Your task to perform on an android device: Go to sound settings Image 0: 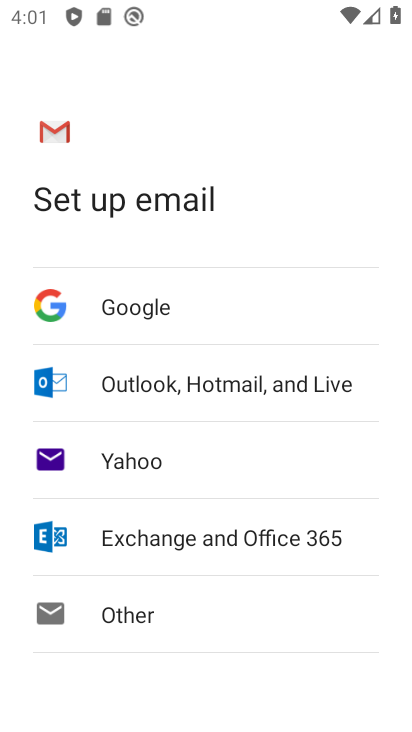
Step 0: press home button
Your task to perform on an android device: Go to sound settings Image 1: 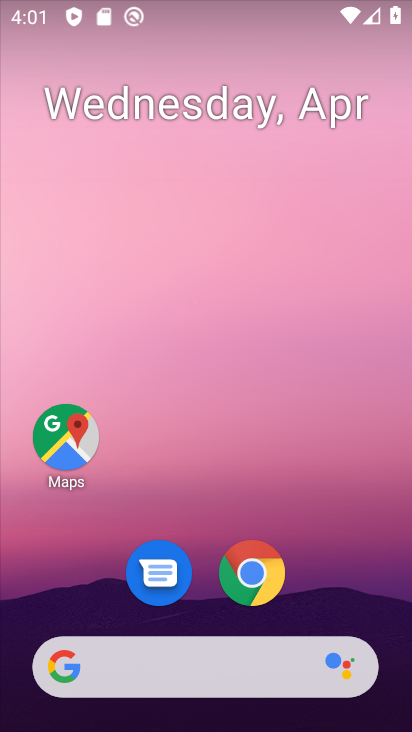
Step 1: drag from (382, 615) to (387, 68)
Your task to perform on an android device: Go to sound settings Image 2: 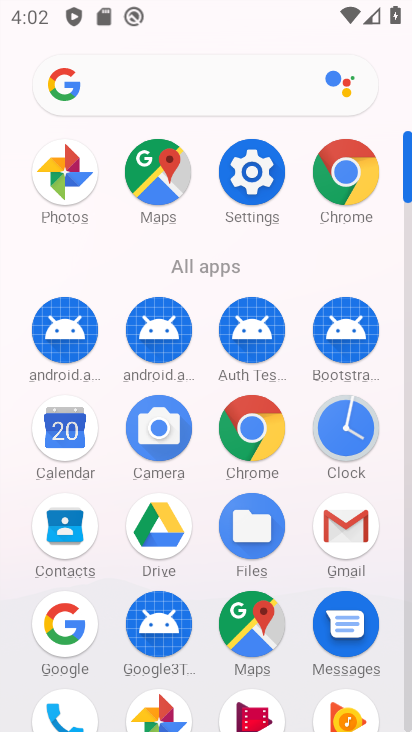
Step 2: click (249, 181)
Your task to perform on an android device: Go to sound settings Image 3: 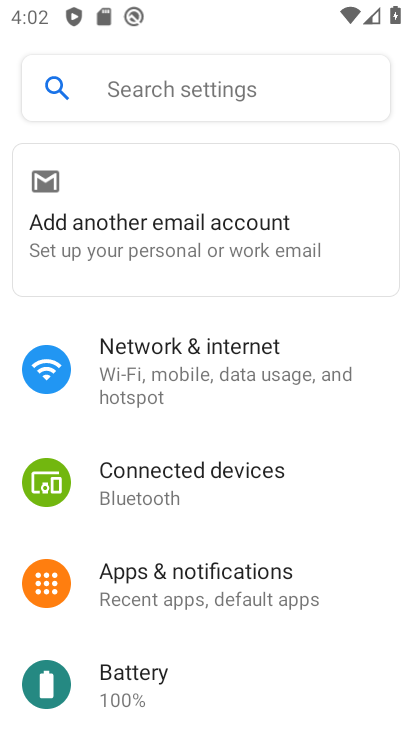
Step 3: drag from (323, 612) to (324, 180)
Your task to perform on an android device: Go to sound settings Image 4: 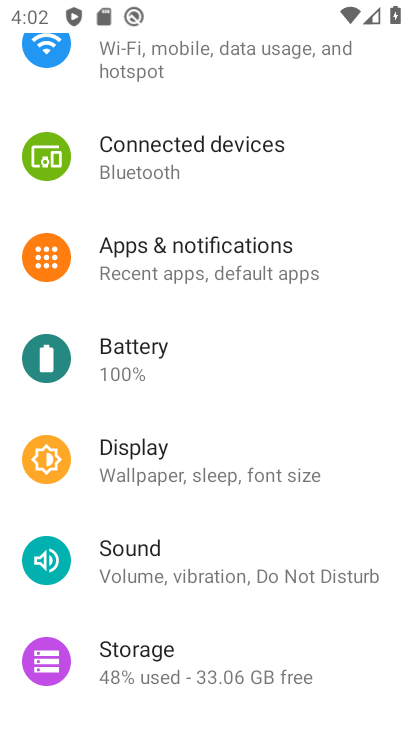
Step 4: click (145, 559)
Your task to perform on an android device: Go to sound settings Image 5: 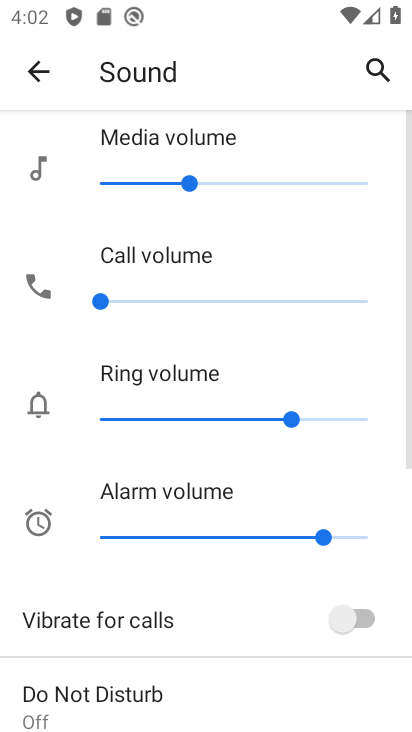
Step 5: task complete